Your task to perform on an android device: allow cookies in the chrome app Image 0: 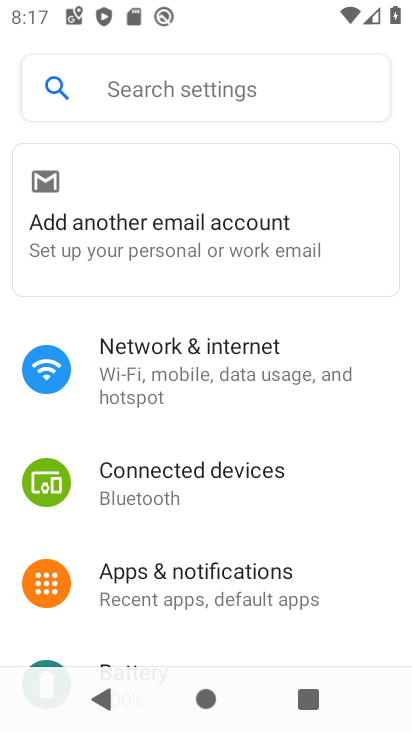
Step 0: press home button
Your task to perform on an android device: allow cookies in the chrome app Image 1: 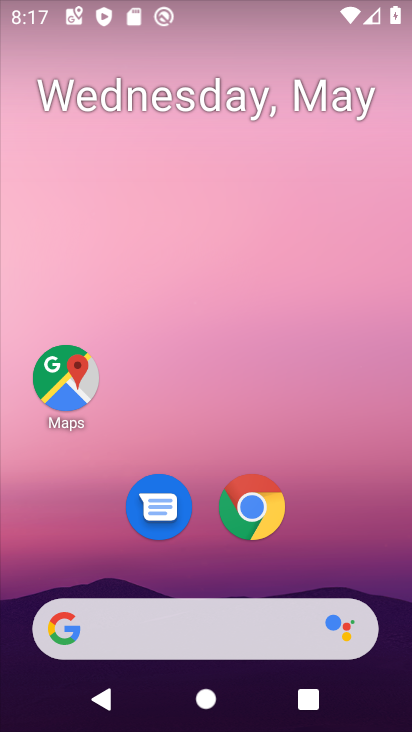
Step 1: drag from (315, 574) to (318, 304)
Your task to perform on an android device: allow cookies in the chrome app Image 2: 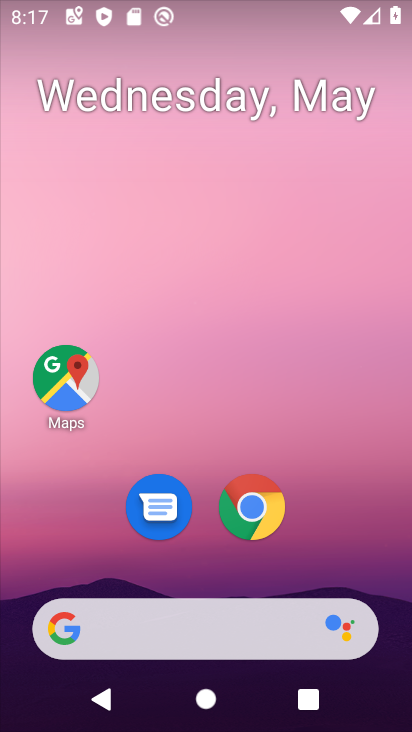
Step 2: click (254, 499)
Your task to perform on an android device: allow cookies in the chrome app Image 3: 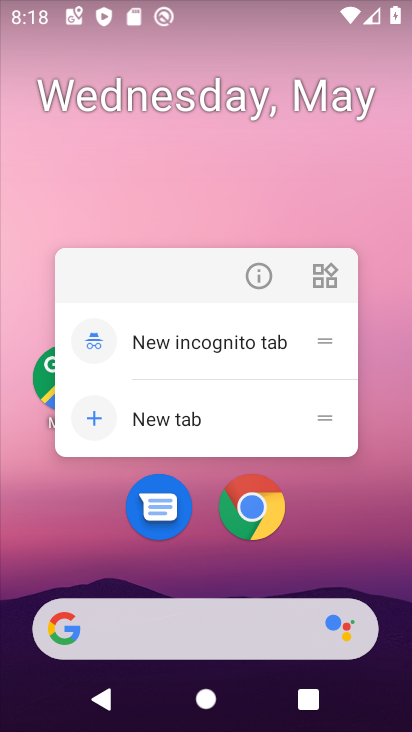
Step 3: click (264, 503)
Your task to perform on an android device: allow cookies in the chrome app Image 4: 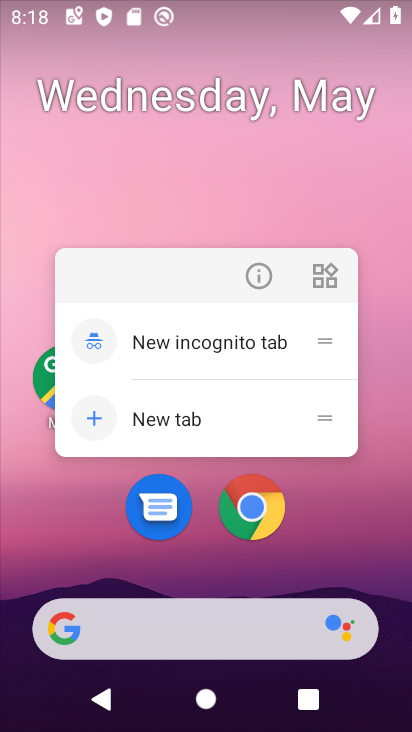
Step 4: click (264, 500)
Your task to perform on an android device: allow cookies in the chrome app Image 5: 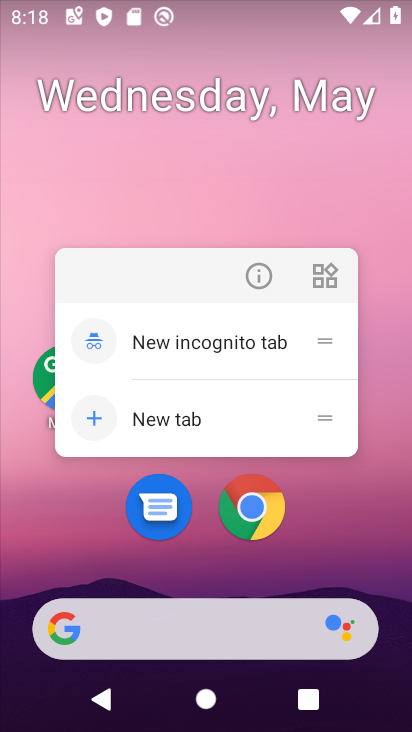
Step 5: click (260, 498)
Your task to perform on an android device: allow cookies in the chrome app Image 6: 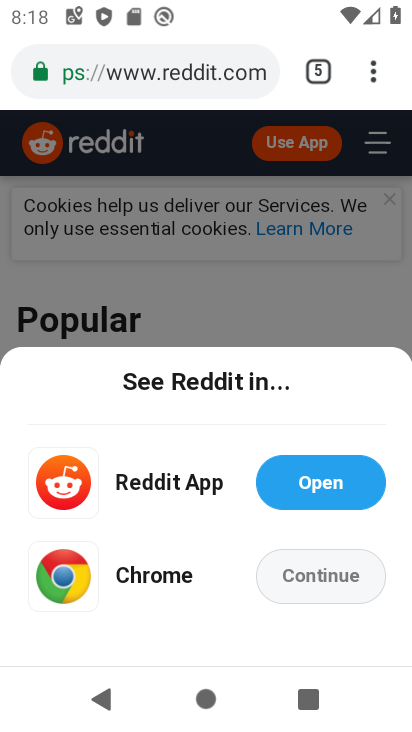
Step 6: click (379, 69)
Your task to perform on an android device: allow cookies in the chrome app Image 7: 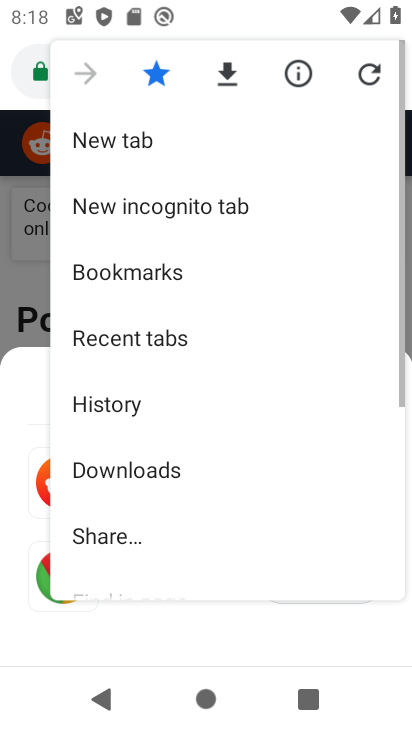
Step 7: drag from (245, 562) to (243, 234)
Your task to perform on an android device: allow cookies in the chrome app Image 8: 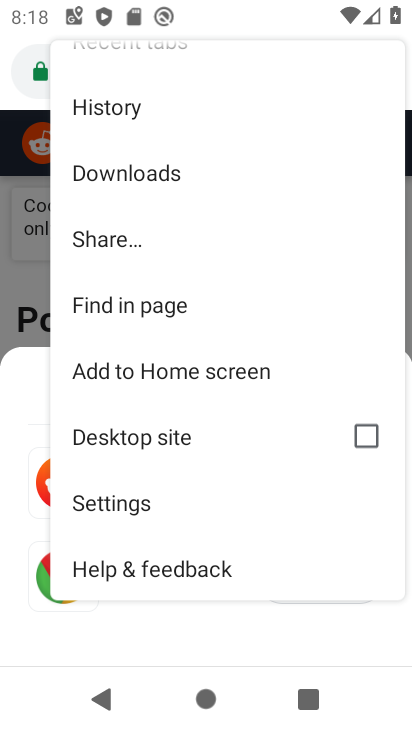
Step 8: click (161, 507)
Your task to perform on an android device: allow cookies in the chrome app Image 9: 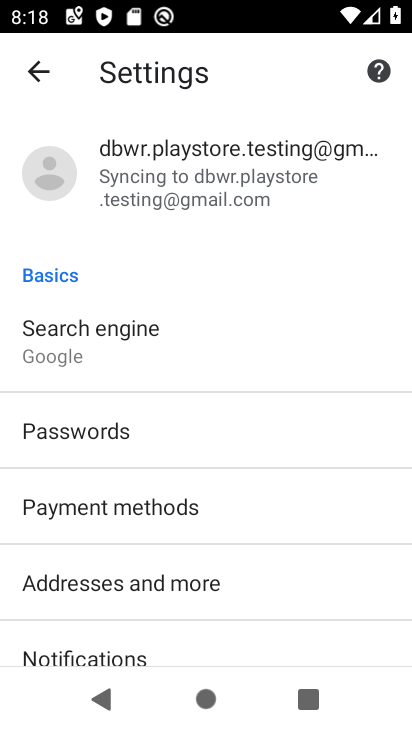
Step 9: drag from (247, 547) to (241, 309)
Your task to perform on an android device: allow cookies in the chrome app Image 10: 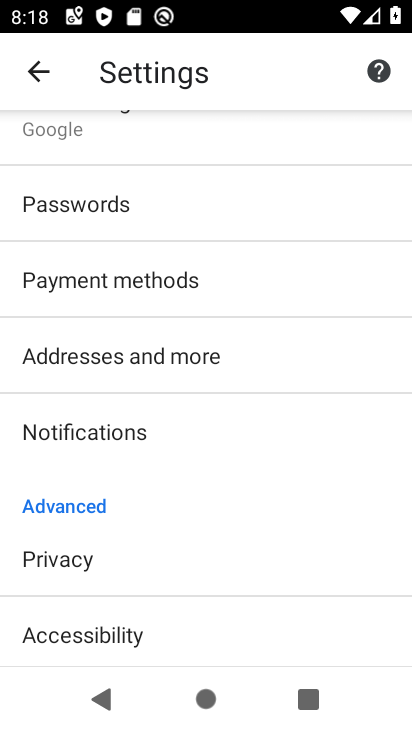
Step 10: drag from (141, 573) to (187, 359)
Your task to perform on an android device: allow cookies in the chrome app Image 11: 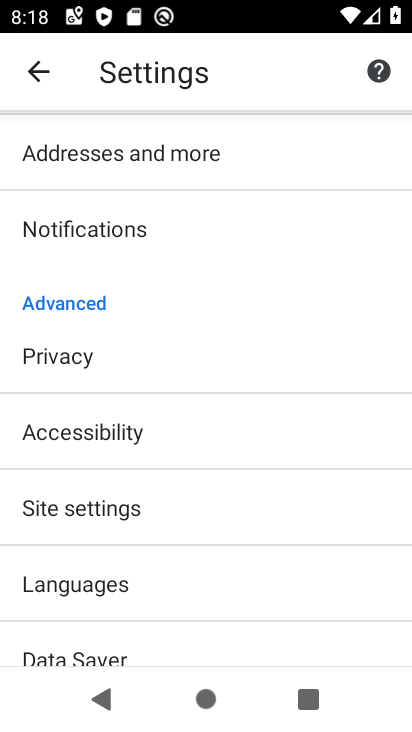
Step 11: click (254, 510)
Your task to perform on an android device: allow cookies in the chrome app Image 12: 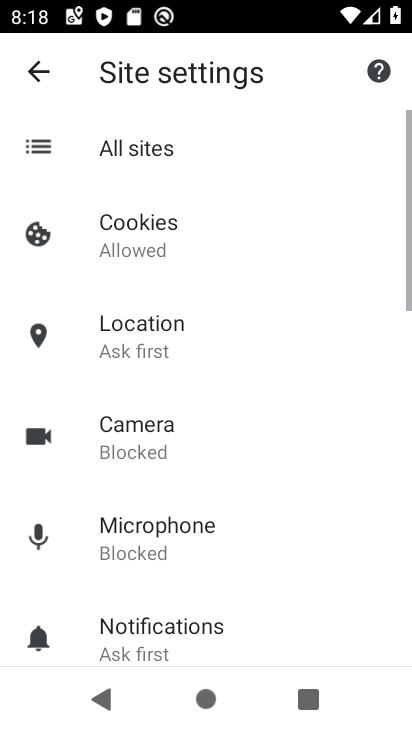
Step 12: click (125, 223)
Your task to perform on an android device: allow cookies in the chrome app Image 13: 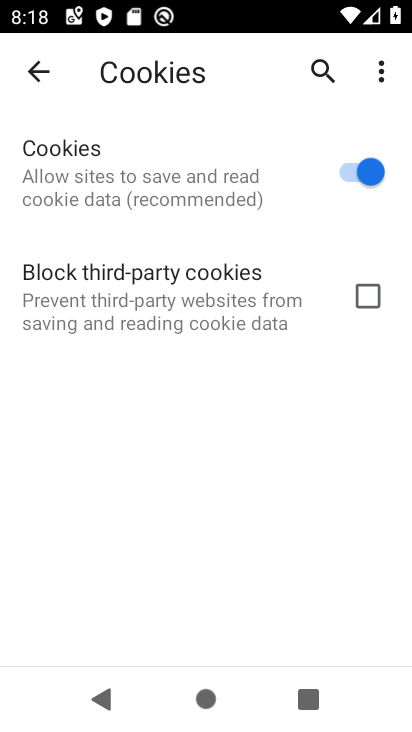
Step 13: task complete